Your task to perform on an android device: Go to notification settings Image 0: 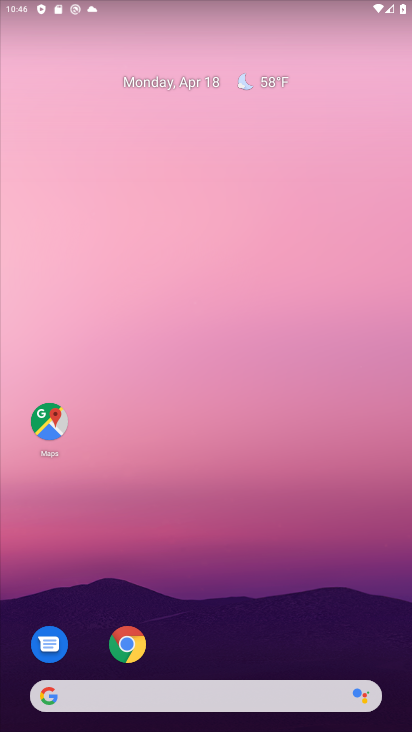
Step 0: drag from (206, 614) to (209, 83)
Your task to perform on an android device: Go to notification settings Image 1: 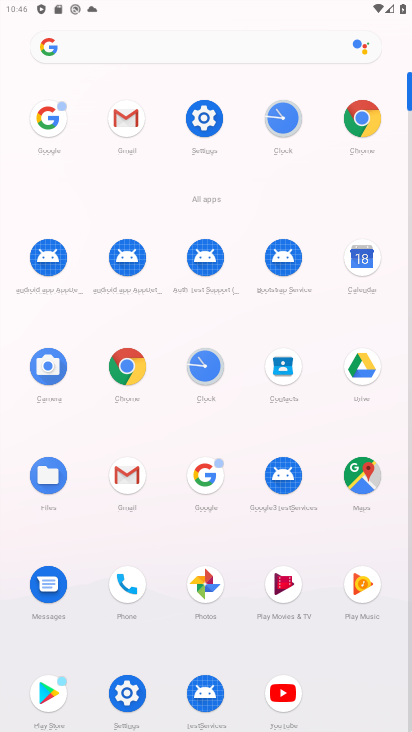
Step 1: click (206, 133)
Your task to perform on an android device: Go to notification settings Image 2: 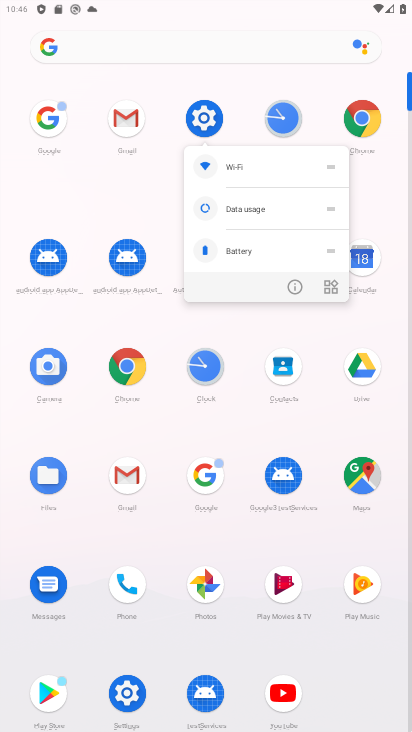
Step 2: click (159, 194)
Your task to perform on an android device: Go to notification settings Image 3: 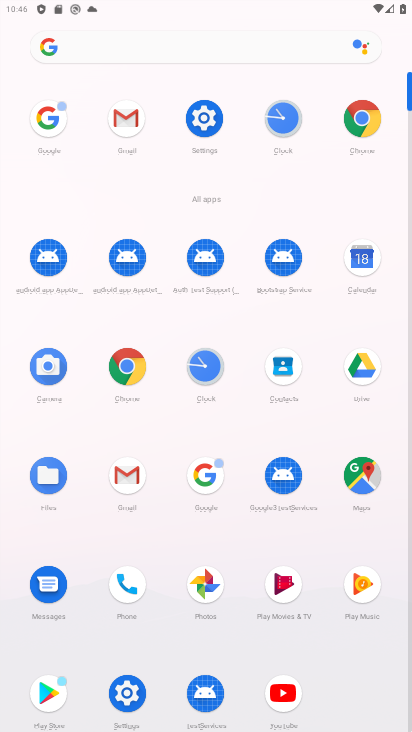
Step 3: click (120, 686)
Your task to perform on an android device: Go to notification settings Image 4: 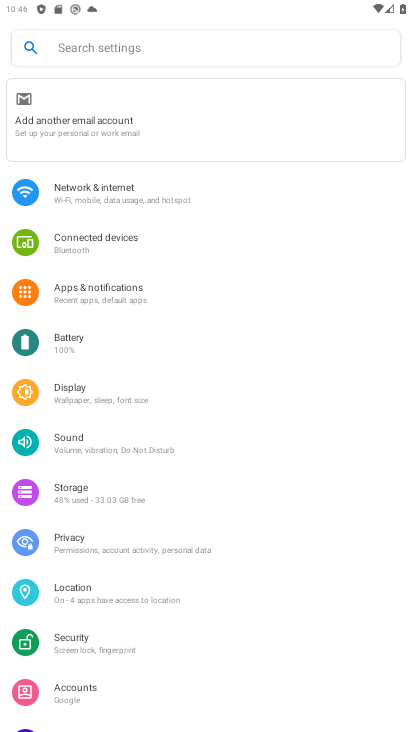
Step 4: click (101, 298)
Your task to perform on an android device: Go to notification settings Image 5: 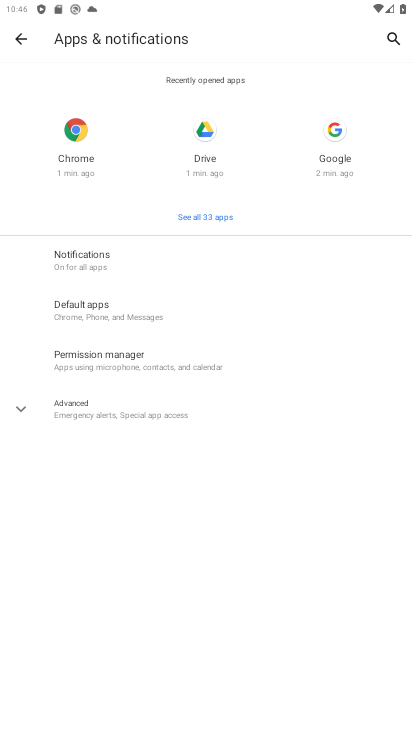
Step 5: task complete